Your task to perform on an android device: Go to Yahoo.com Image 0: 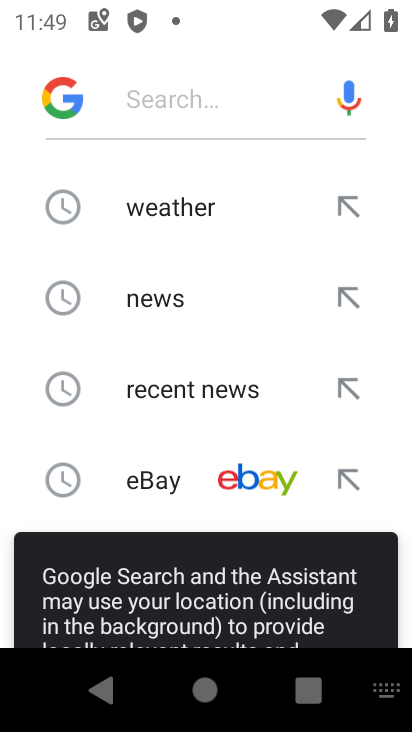
Step 0: press home button
Your task to perform on an android device: Go to Yahoo.com Image 1: 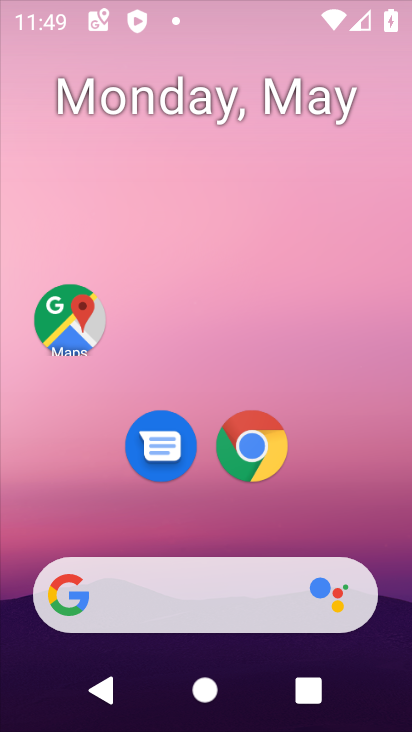
Step 1: drag from (275, 561) to (313, 224)
Your task to perform on an android device: Go to Yahoo.com Image 2: 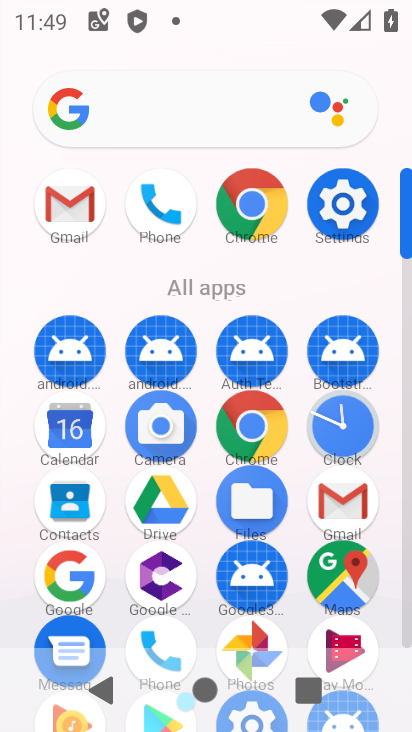
Step 2: click (260, 186)
Your task to perform on an android device: Go to Yahoo.com Image 3: 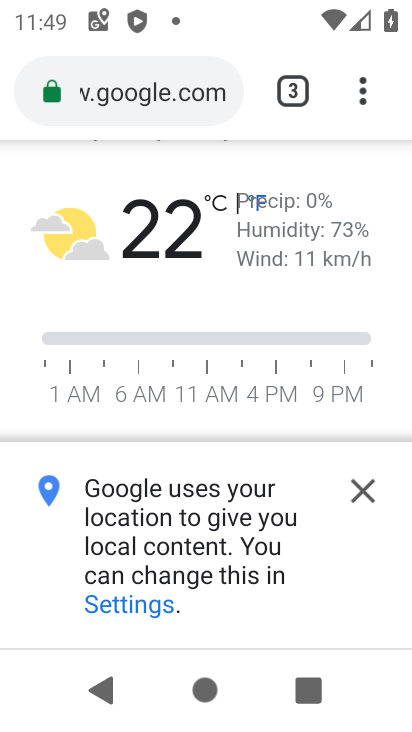
Step 3: click (349, 98)
Your task to perform on an android device: Go to Yahoo.com Image 4: 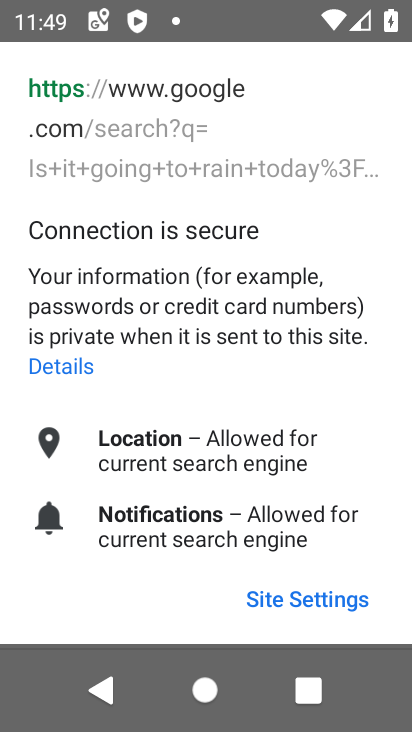
Step 4: press back button
Your task to perform on an android device: Go to Yahoo.com Image 5: 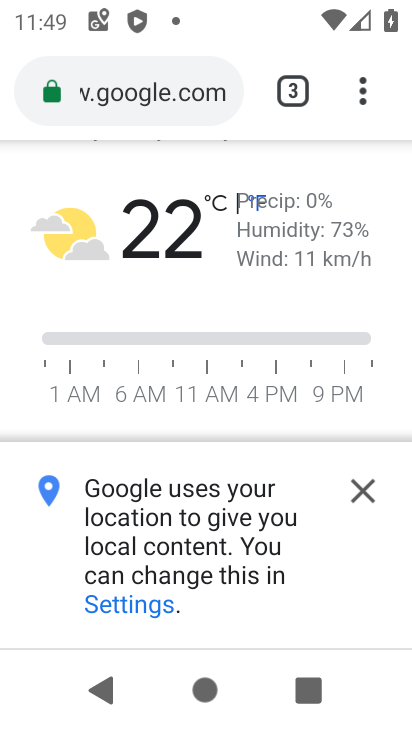
Step 5: click (360, 88)
Your task to perform on an android device: Go to Yahoo.com Image 6: 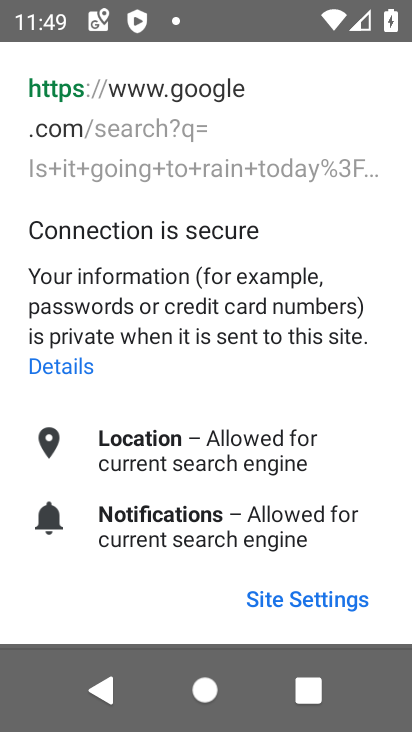
Step 6: press back button
Your task to perform on an android device: Go to Yahoo.com Image 7: 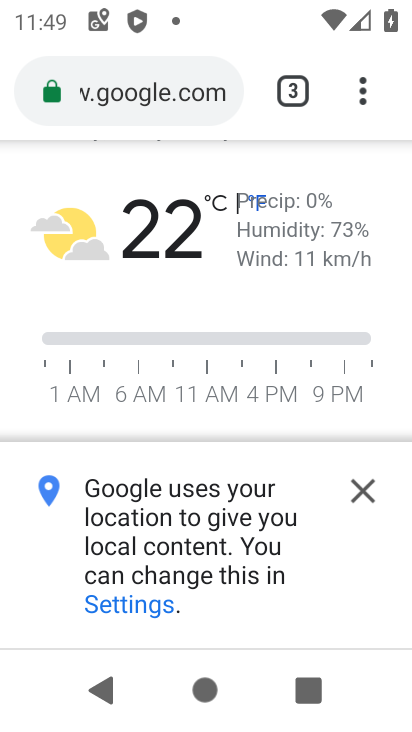
Step 7: click (357, 85)
Your task to perform on an android device: Go to Yahoo.com Image 8: 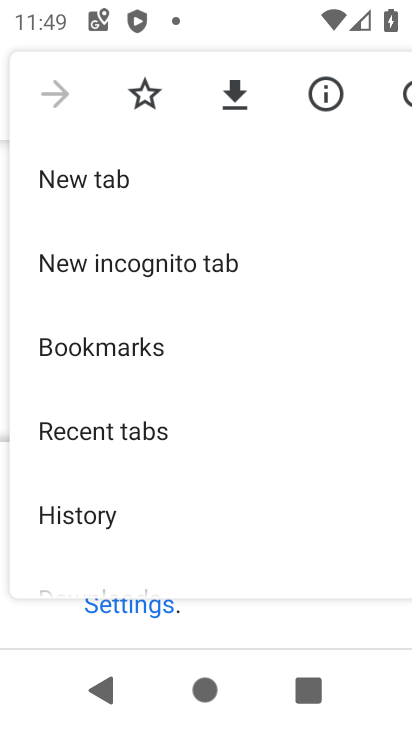
Step 8: click (109, 180)
Your task to perform on an android device: Go to Yahoo.com Image 9: 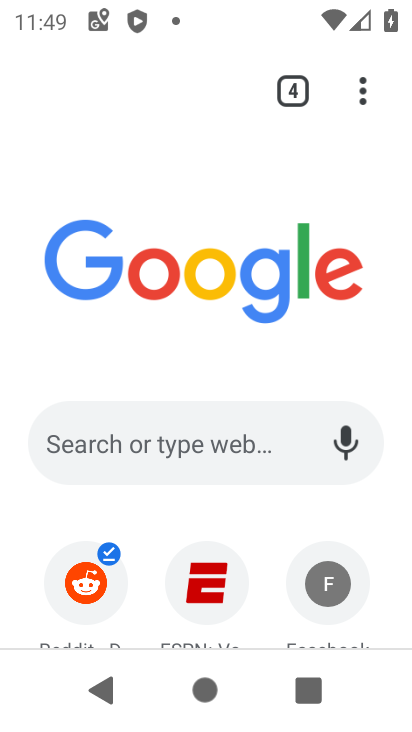
Step 9: drag from (187, 529) to (278, 210)
Your task to perform on an android device: Go to Yahoo.com Image 10: 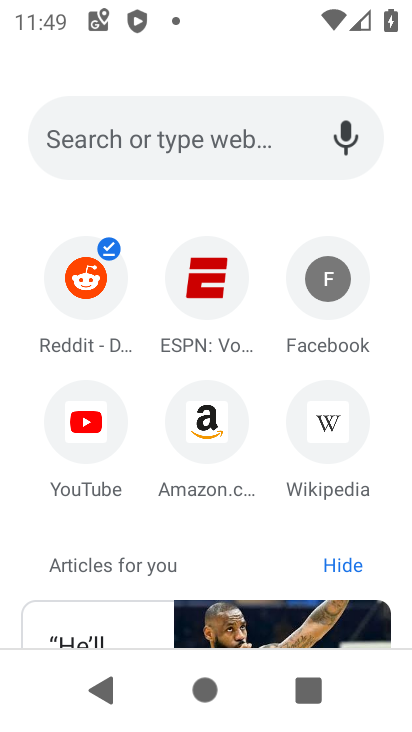
Step 10: click (134, 126)
Your task to perform on an android device: Go to Yahoo.com Image 11: 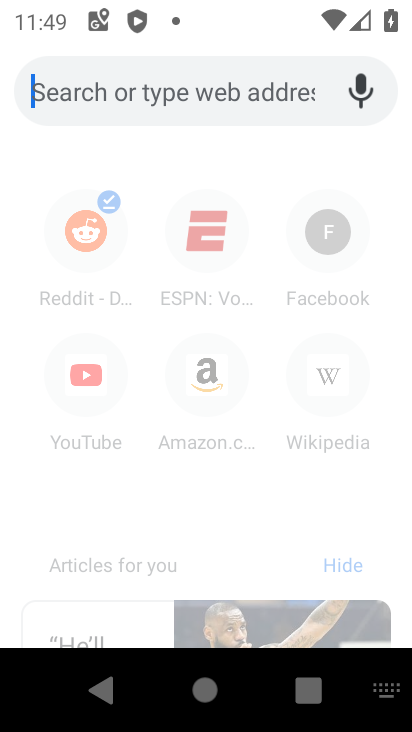
Step 11: type "Yahoo.com"
Your task to perform on an android device: Go to Yahoo.com Image 12: 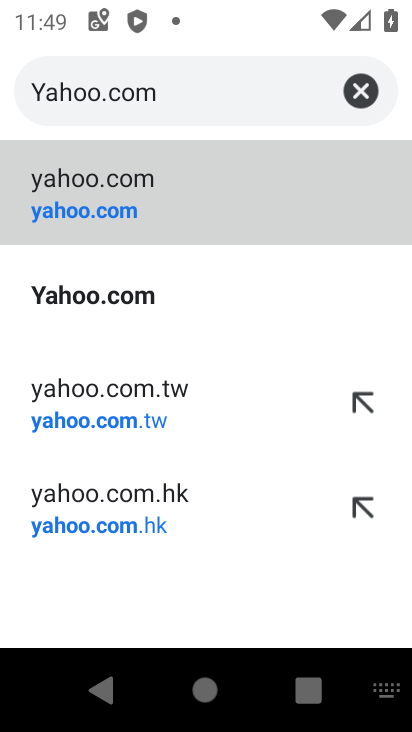
Step 12: click (62, 187)
Your task to perform on an android device: Go to Yahoo.com Image 13: 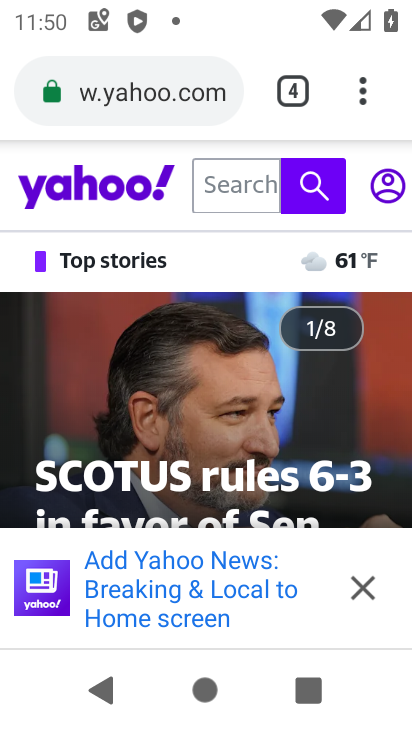
Step 13: task complete